Your task to perform on an android device: open device folders in google photos Image 0: 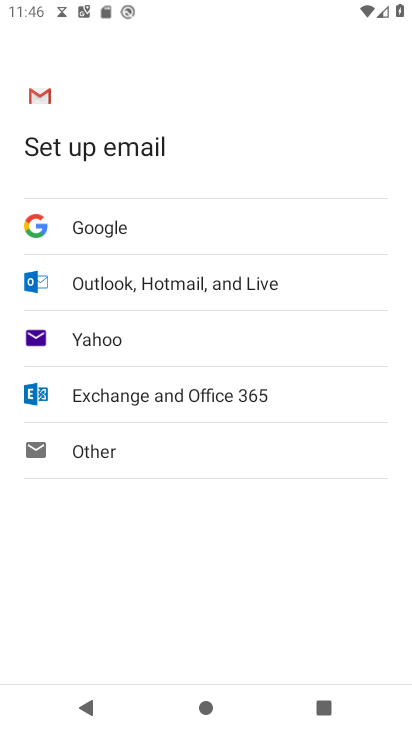
Step 0: press home button
Your task to perform on an android device: open device folders in google photos Image 1: 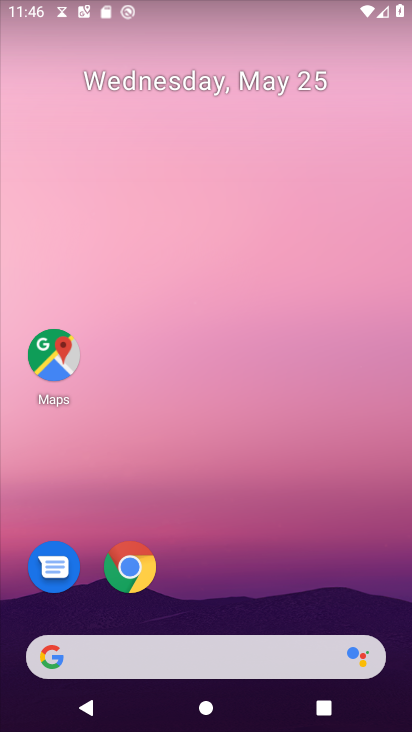
Step 1: drag from (250, 589) to (293, 285)
Your task to perform on an android device: open device folders in google photos Image 2: 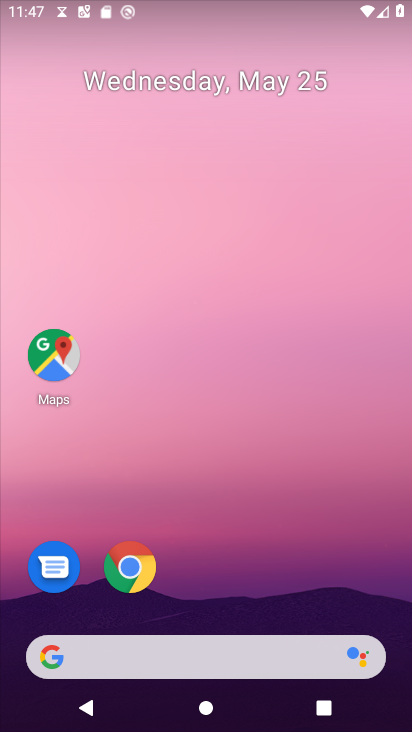
Step 2: drag from (190, 575) to (284, 170)
Your task to perform on an android device: open device folders in google photos Image 3: 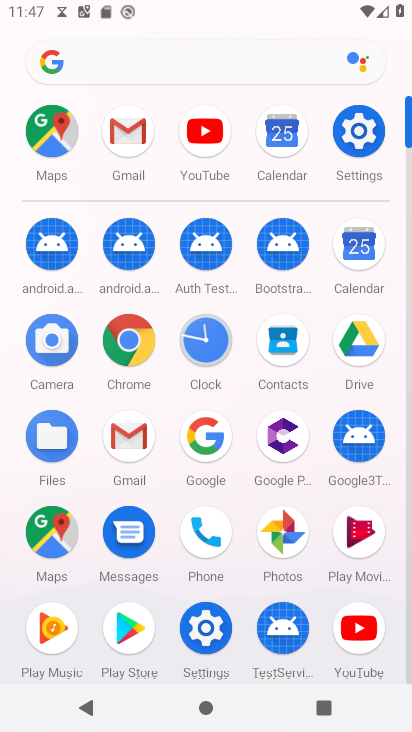
Step 3: click (301, 529)
Your task to perform on an android device: open device folders in google photos Image 4: 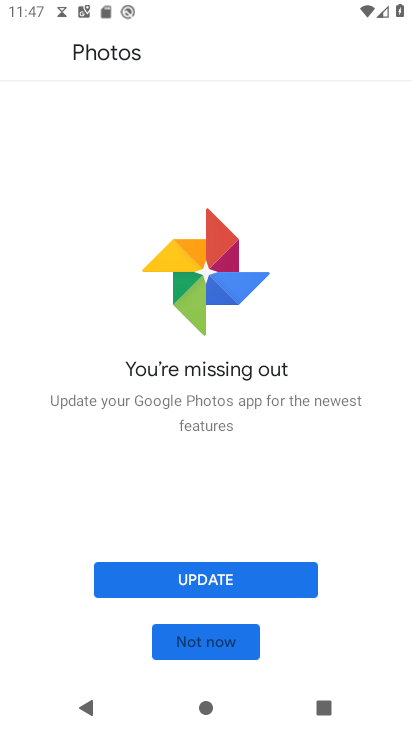
Step 4: click (266, 574)
Your task to perform on an android device: open device folders in google photos Image 5: 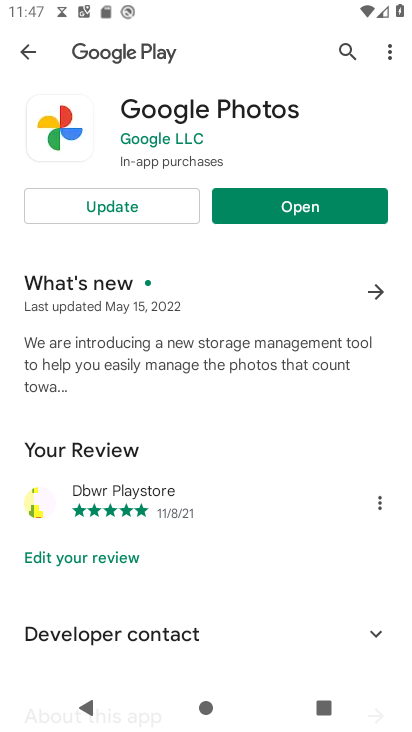
Step 5: click (117, 211)
Your task to perform on an android device: open device folders in google photos Image 6: 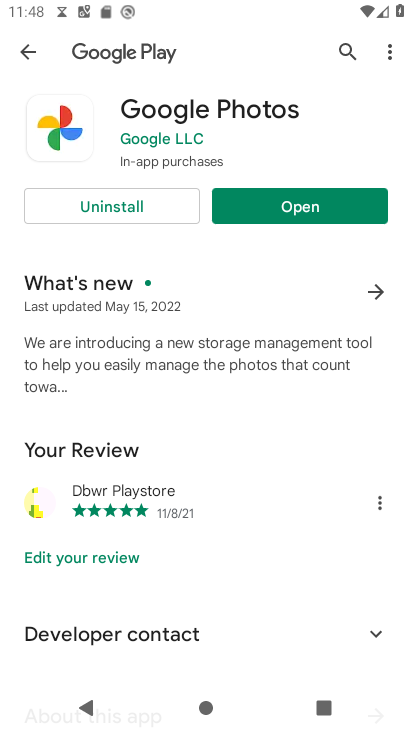
Step 6: click (310, 205)
Your task to perform on an android device: open device folders in google photos Image 7: 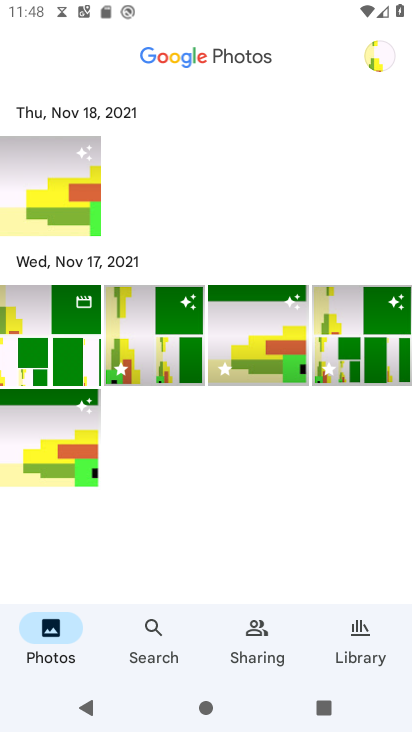
Step 7: task complete